Your task to perform on an android device: Open Chrome and go to the settings page Image 0: 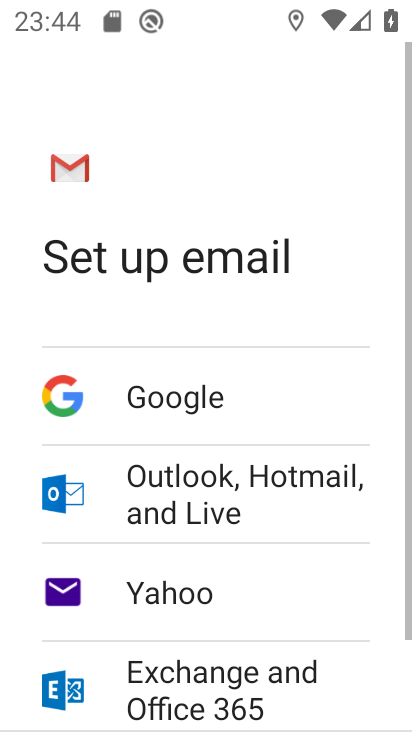
Step 0: press home button
Your task to perform on an android device: Open Chrome and go to the settings page Image 1: 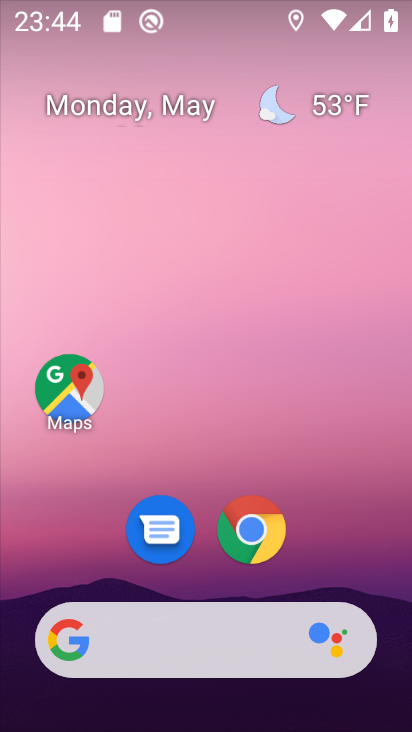
Step 1: click (253, 520)
Your task to perform on an android device: Open Chrome and go to the settings page Image 2: 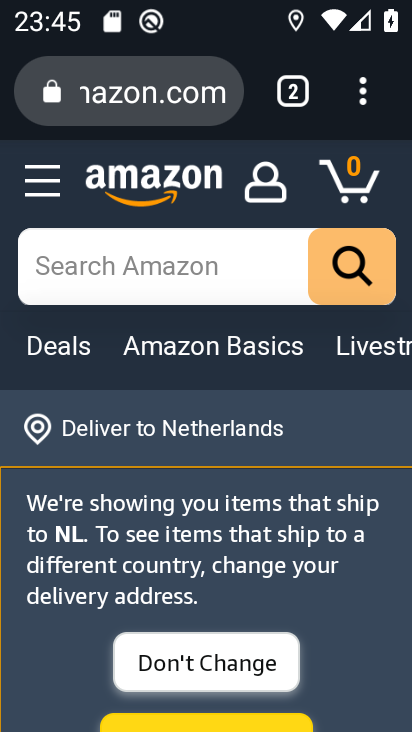
Step 2: click (367, 79)
Your task to perform on an android device: Open Chrome and go to the settings page Image 3: 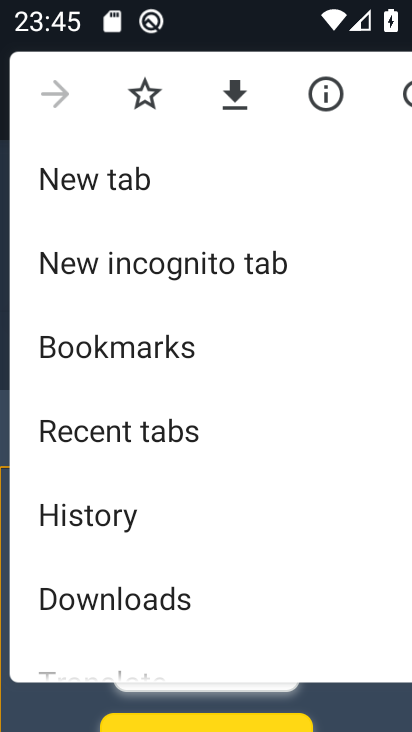
Step 3: drag from (230, 563) to (249, 262)
Your task to perform on an android device: Open Chrome and go to the settings page Image 4: 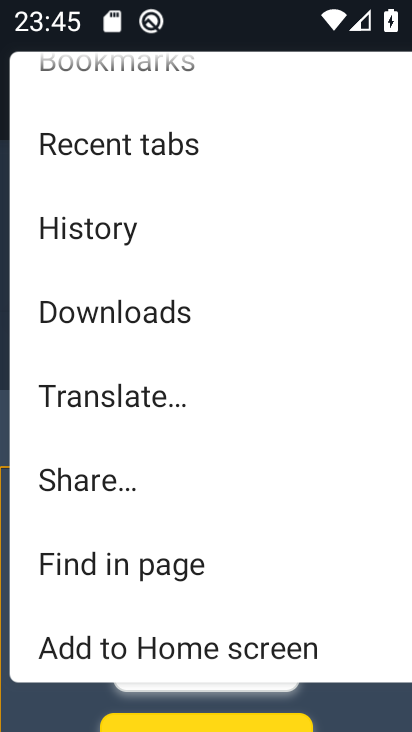
Step 4: drag from (264, 599) to (246, 345)
Your task to perform on an android device: Open Chrome and go to the settings page Image 5: 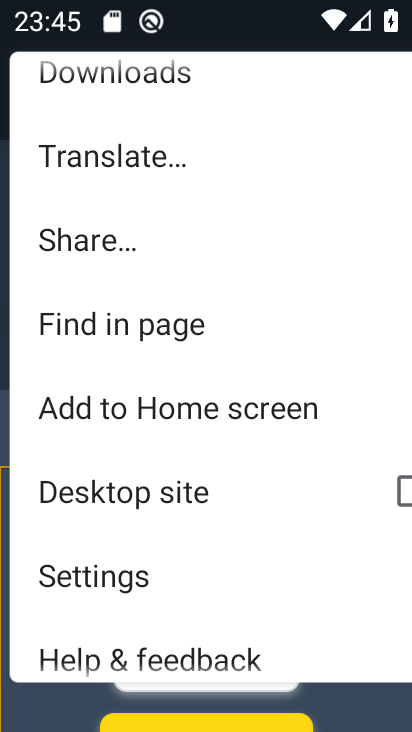
Step 5: click (130, 573)
Your task to perform on an android device: Open Chrome and go to the settings page Image 6: 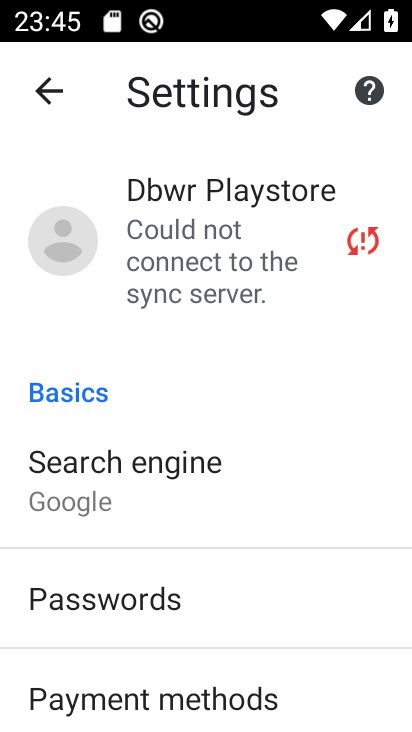
Step 6: task complete